Your task to perform on an android device: Open settings on Google Maps Image 0: 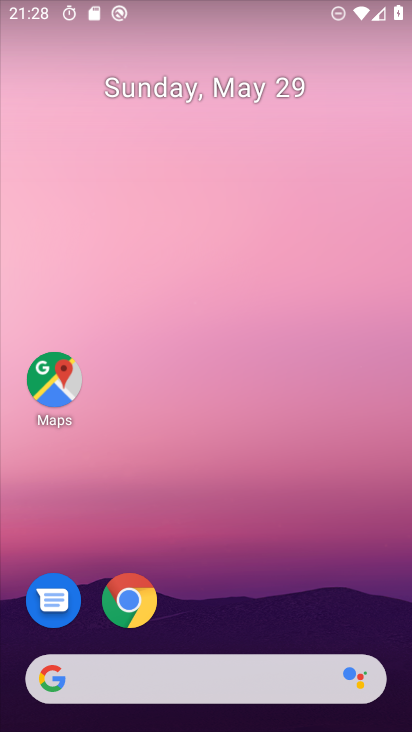
Step 0: drag from (275, 585) to (278, 217)
Your task to perform on an android device: Open settings on Google Maps Image 1: 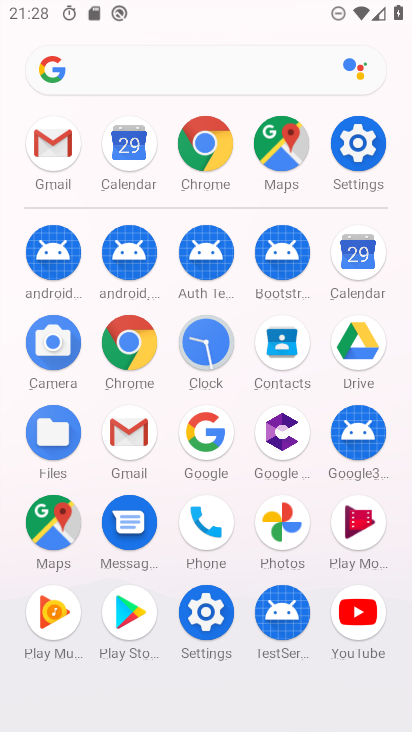
Step 1: click (43, 528)
Your task to perform on an android device: Open settings on Google Maps Image 2: 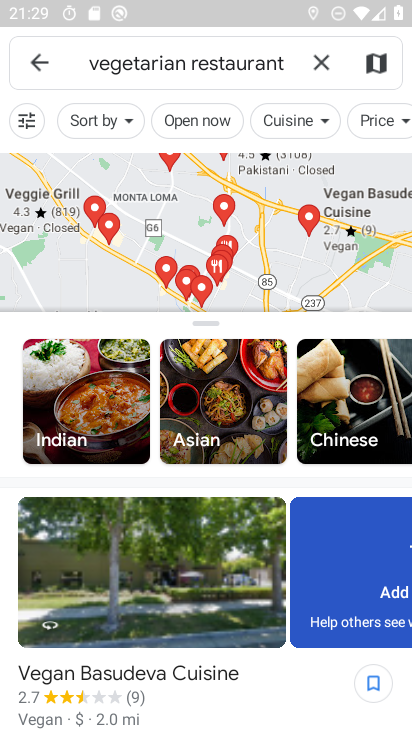
Step 2: task complete